Your task to perform on an android device: turn on javascript in the chrome app Image 0: 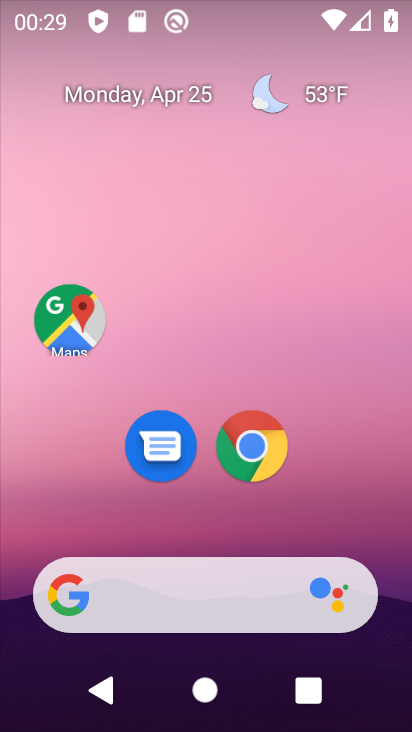
Step 0: click (254, 443)
Your task to perform on an android device: turn on javascript in the chrome app Image 1: 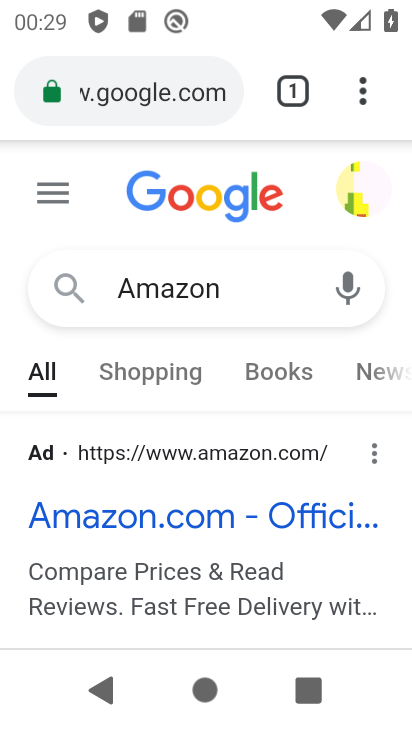
Step 1: click (359, 103)
Your task to perform on an android device: turn on javascript in the chrome app Image 2: 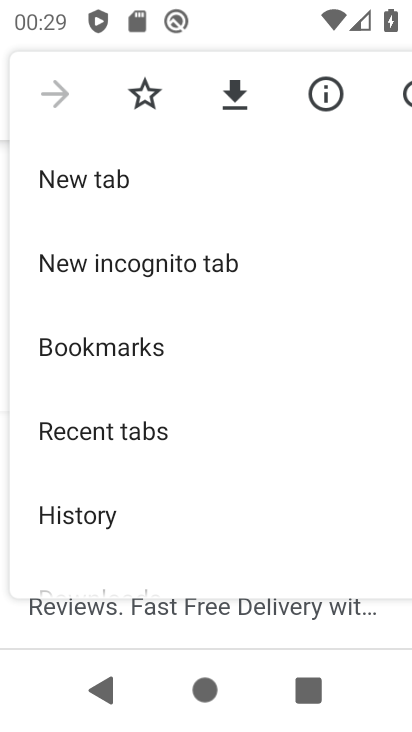
Step 2: drag from (138, 530) to (218, 45)
Your task to perform on an android device: turn on javascript in the chrome app Image 3: 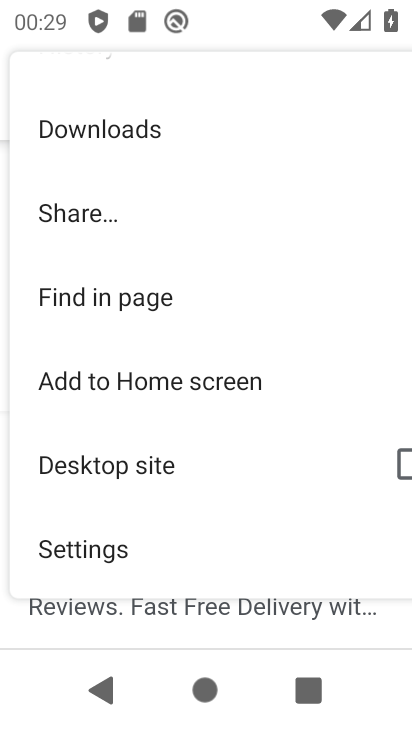
Step 3: click (80, 544)
Your task to perform on an android device: turn on javascript in the chrome app Image 4: 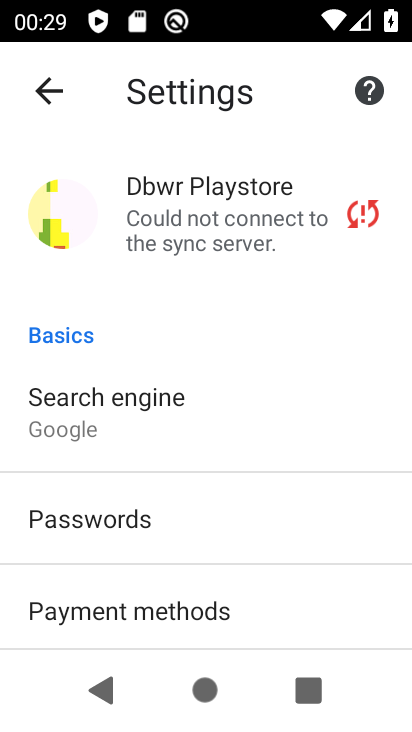
Step 4: drag from (160, 473) to (211, 205)
Your task to perform on an android device: turn on javascript in the chrome app Image 5: 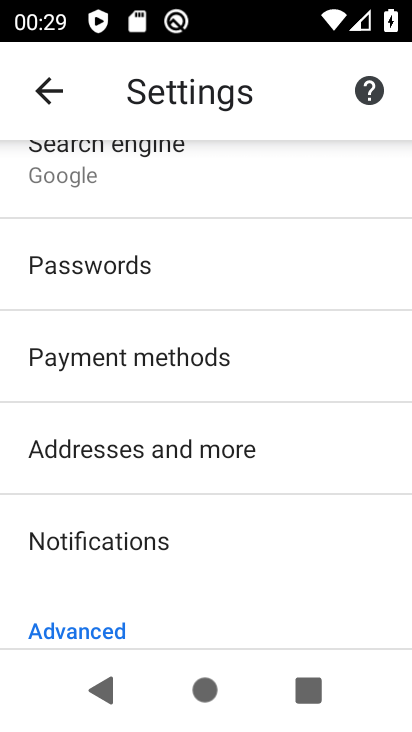
Step 5: drag from (103, 538) to (174, 94)
Your task to perform on an android device: turn on javascript in the chrome app Image 6: 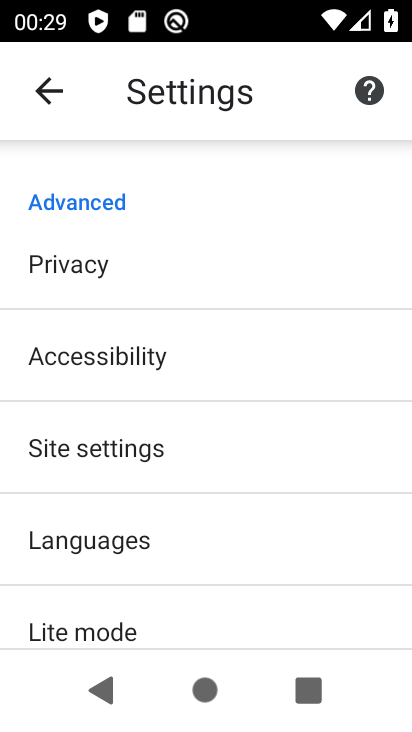
Step 6: click (91, 456)
Your task to perform on an android device: turn on javascript in the chrome app Image 7: 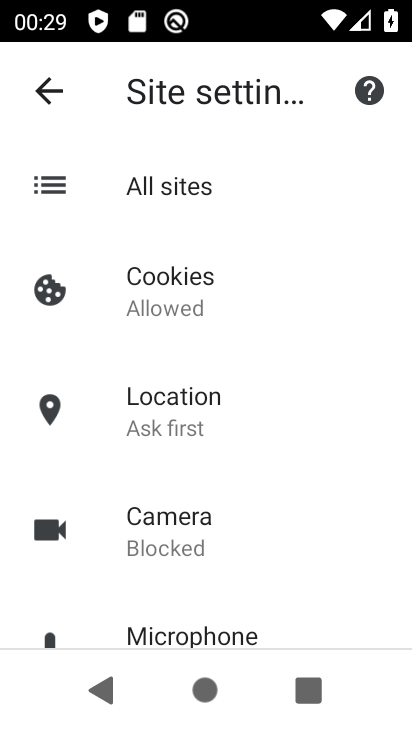
Step 7: drag from (149, 470) to (226, 222)
Your task to perform on an android device: turn on javascript in the chrome app Image 8: 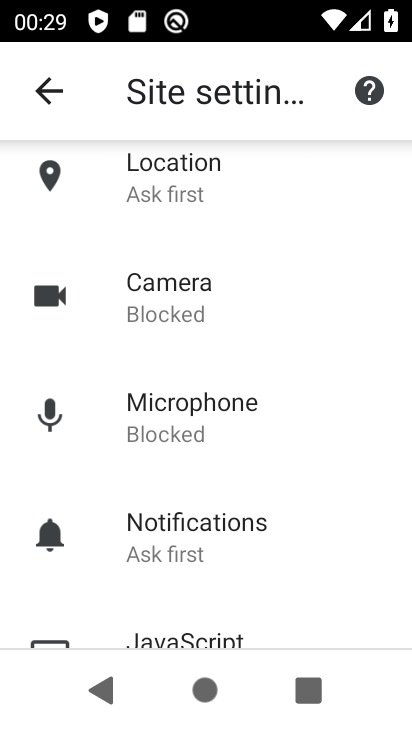
Step 8: drag from (173, 523) to (244, 185)
Your task to perform on an android device: turn on javascript in the chrome app Image 9: 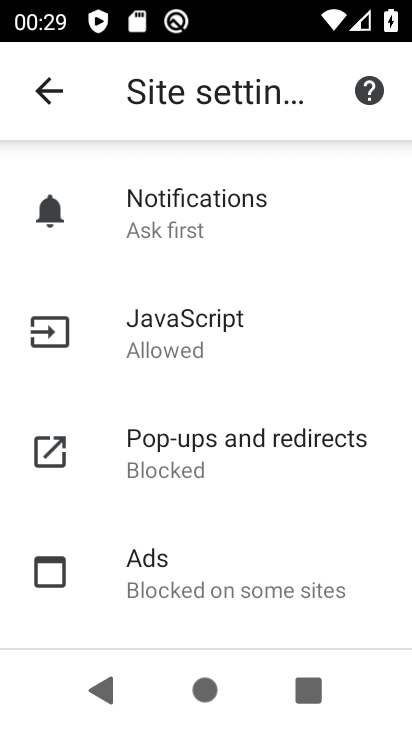
Step 9: click (171, 325)
Your task to perform on an android device: turn on javascript in the chrome app Image 10: 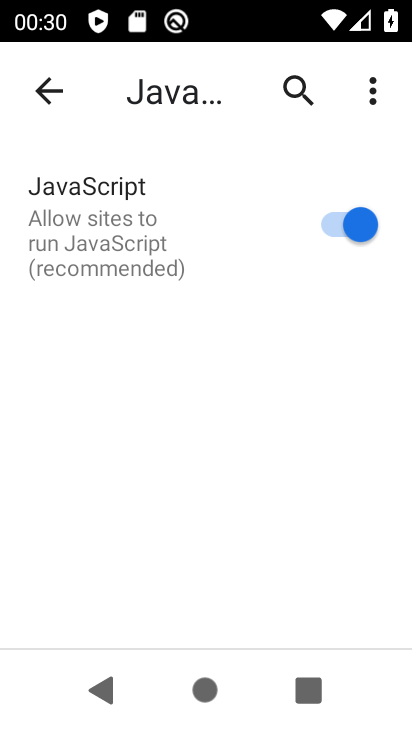
Step 10: task complete